Your task to perform on an android device: Is it going to rain tomorrow? Image 0: 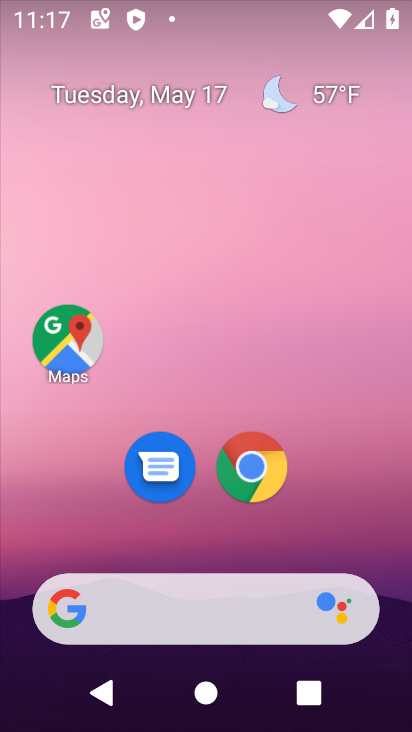
Step 0: drag from (277, 629) to (307, 238)
Your task to perform on an android device: Is it going to rain tomorrow? Image 1: 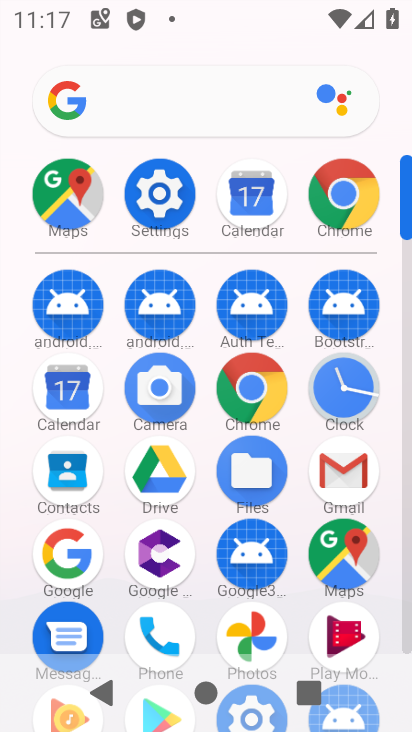
Step 1: click (315, 231)
Your task to perform on an android device: Is it going to rain tomorrow? Image 2: 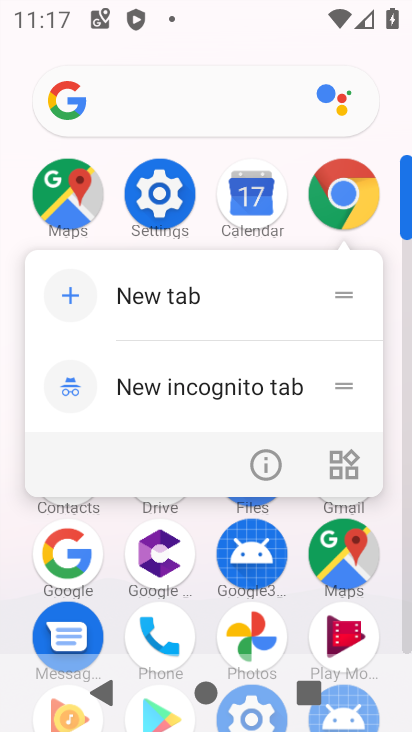
Step 2: click (153, 118)
Your task to perform on an android device: Is it going to rain tomorrow? Image 3: 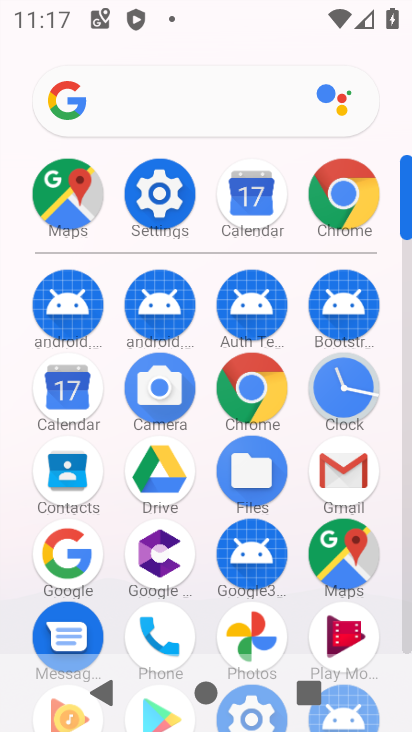
Step 3: click (138, 119)
Your task to perform on an android device: Is it going to rain tomorrow? Image 4: 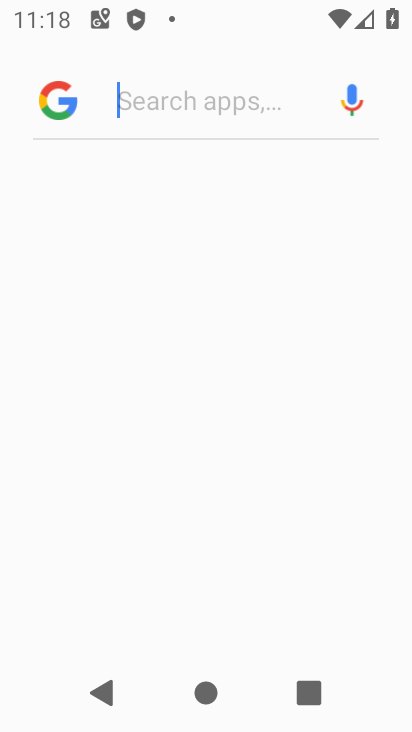
Step 4: click (138, 119)
Your task to perform on an android device: Is it going to rain tomorrow? Image 5: 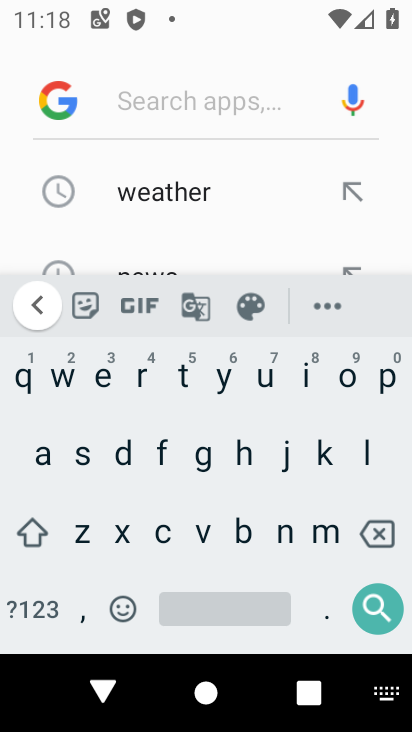
Step 5: click (158, 190)
Your task to perform on an android device: Is it going to rain tomorrow? Image 6: 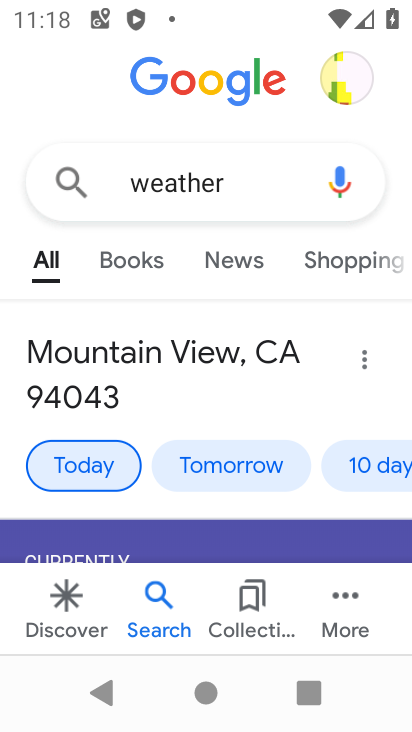
Step 6: click (241, 475)
Your task to perform on an android device: Is it going to rain tomorrow? Image 7: 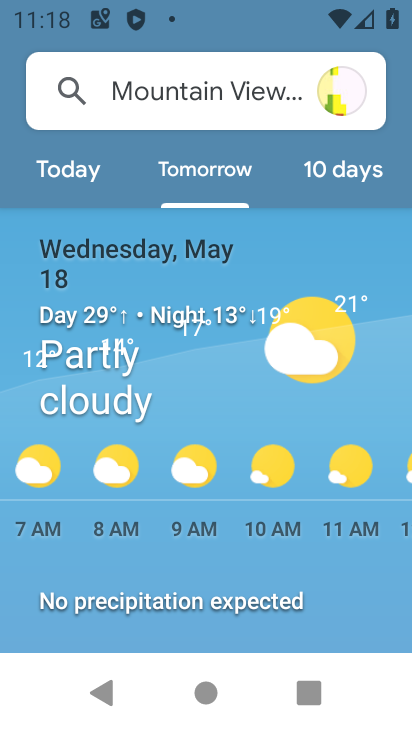
Step 7: click (245, 451)
Your task to perform on an android device: Is it going to rain tomorrow? Image 8: 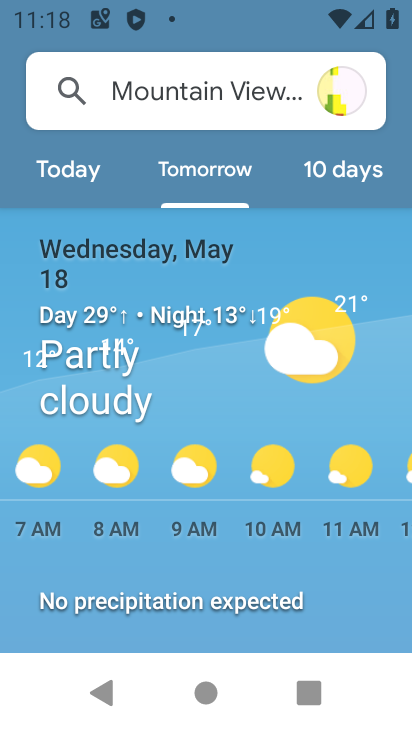
Step 8: task complete